Your task to perform on an android device: turn notification dots off Image 0: 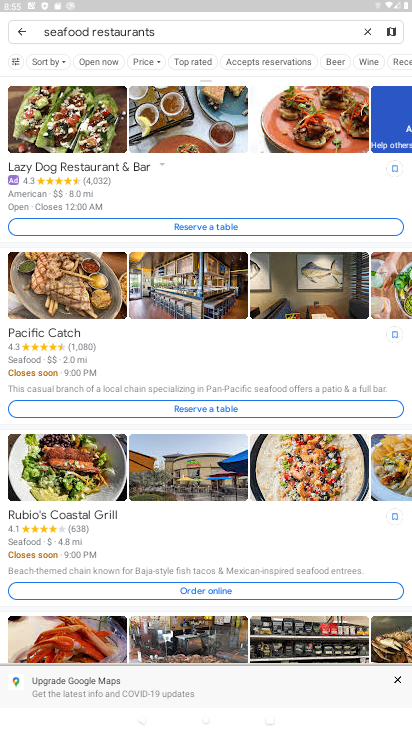
Step 0: press home button
Your task to perform on an android device: turn notification dots off Image 1: 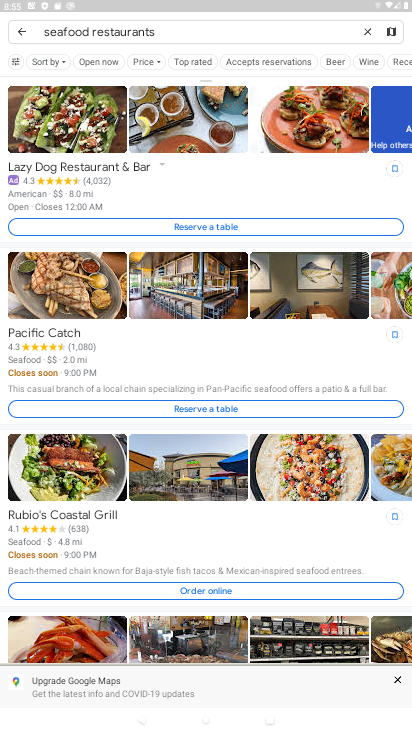
Step 1: drag from (239, 541) to (233, 258)
Your task to perform on an android device: turn notification dots off Image 2: 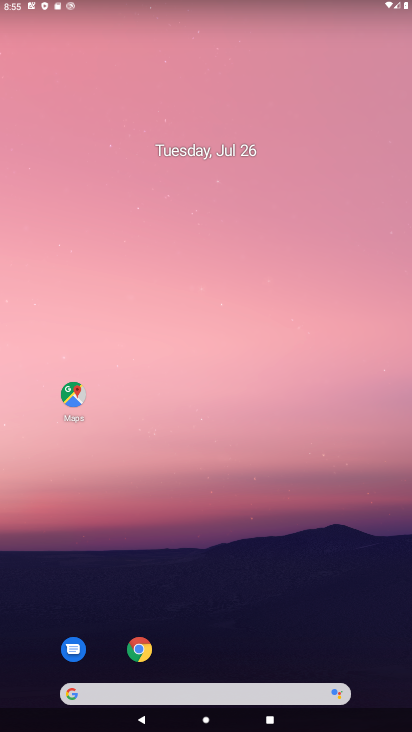
Step 2: drag from (182, 641) to (258, 115)
Your task to perform on an android device: turn notification dots off Image 3: 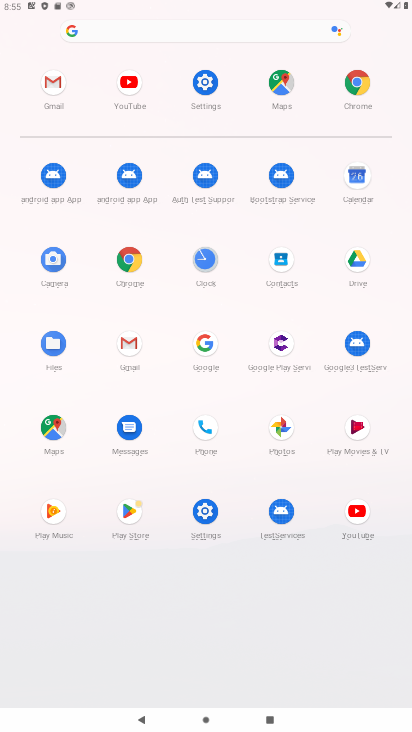
Step 3: click (209, 498)
Your task to perform on an android device: turn notification dots off Image 4: 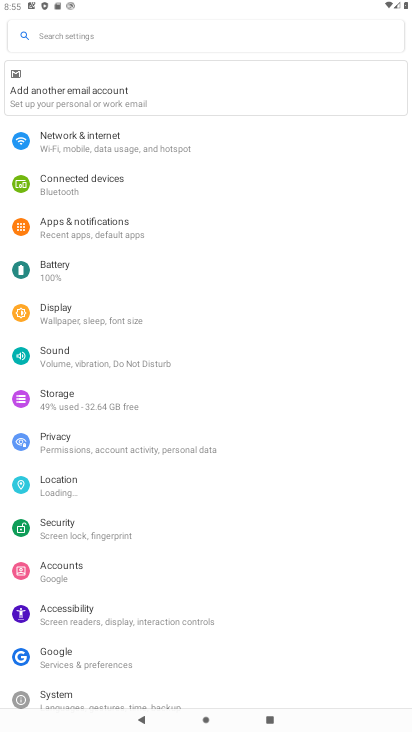
Step 4: click (133, 232)
Your task to perform on an android device: turn notification dots off Image 5: 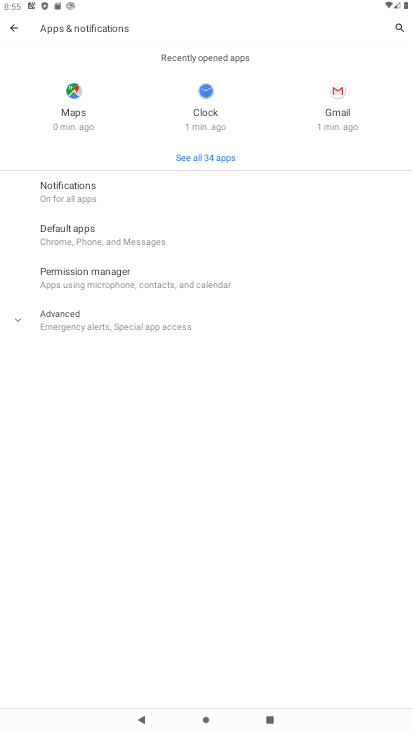
Step 5: click (135, 190)
Your task to perform on an android device: turn notification dots off Image 6: 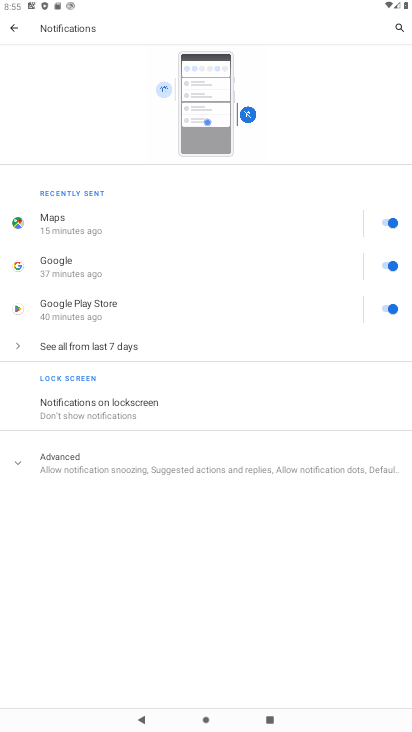
Step 6: click (110, 485)
Your task to perform on an android device: turn notification dots off Image 7: 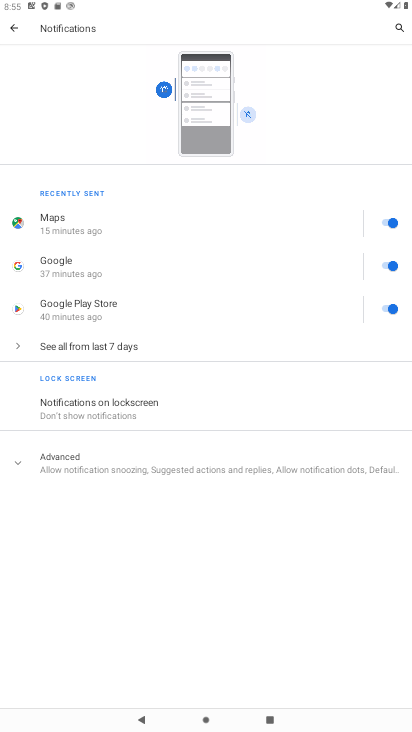
Step 7: click (162, 450)
Your task to perform on an android device: turn notification dots off Image 8: 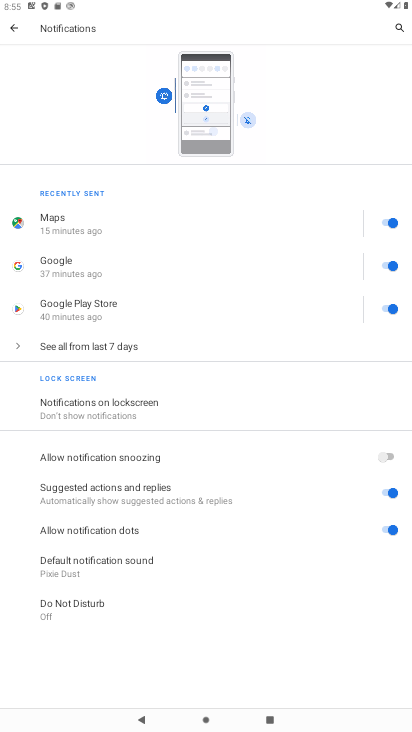
Step 8: click (151, 533)
Your task to perform on an android device: turn notification dots off Image 9: 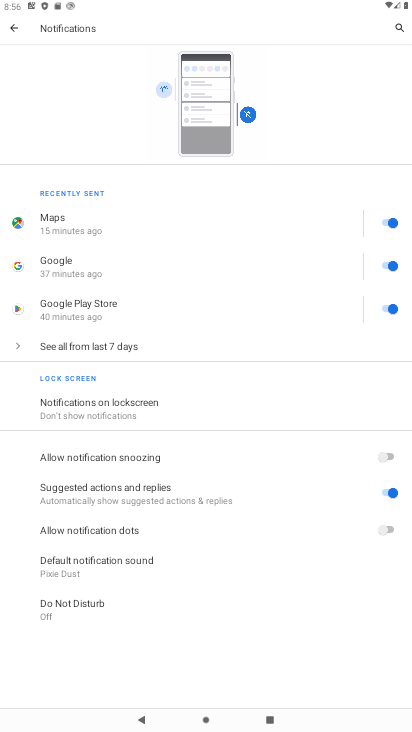
Step 9: task complete